Your task to perform on an android device: What's on my calendar today? Image 0: 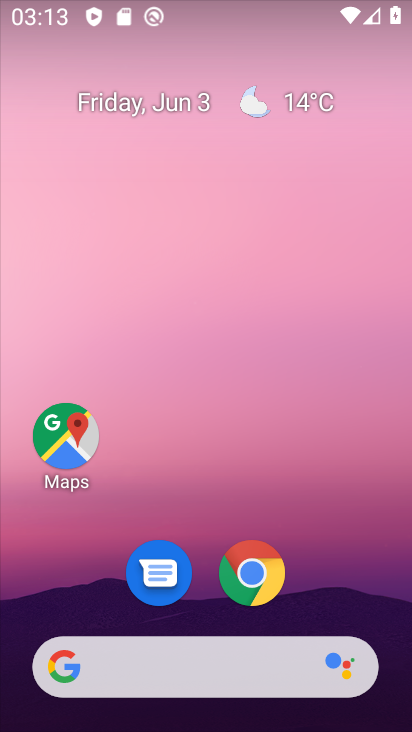
Step 0: drag from (242, 628) to (248, 33)
Your task to perform on an android device: What's on my calendar today? Image 1: 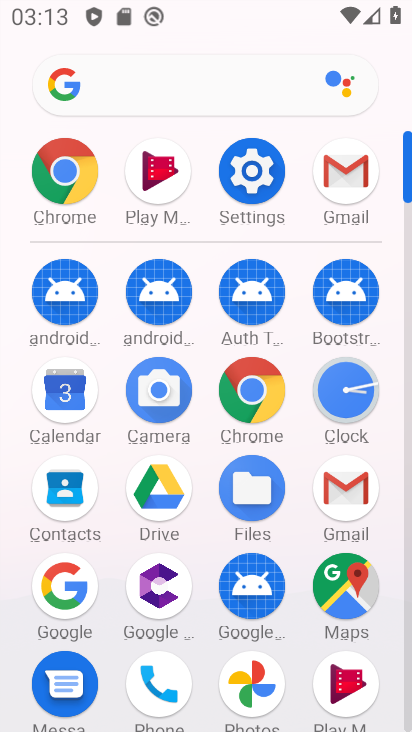
Step 1: click (79, 404)
Your task to perform on an android device: What's on my calendar today? Image 2: 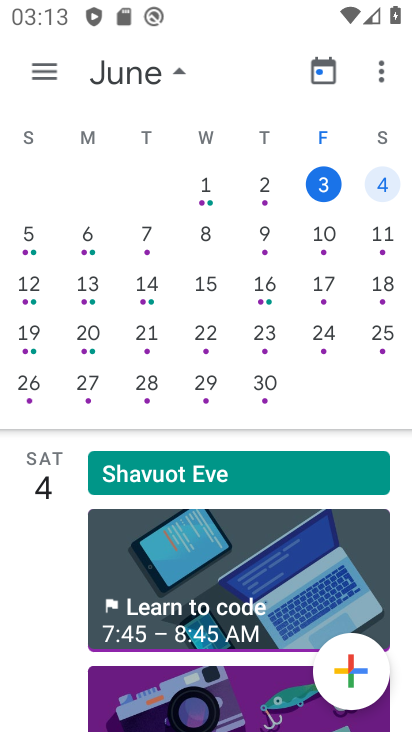
Step 2: click (324, 186)
Your task to perform on an android device: What's on my calendar today? Image 3: 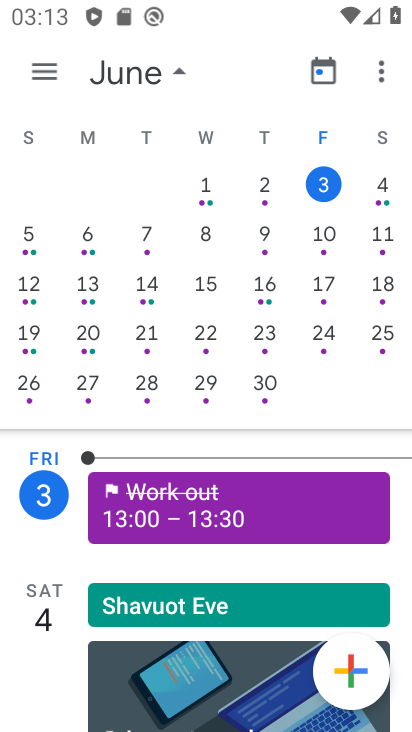
Step 3: task complete